Your task to perform on an android device: change text size in settings app Image 0: 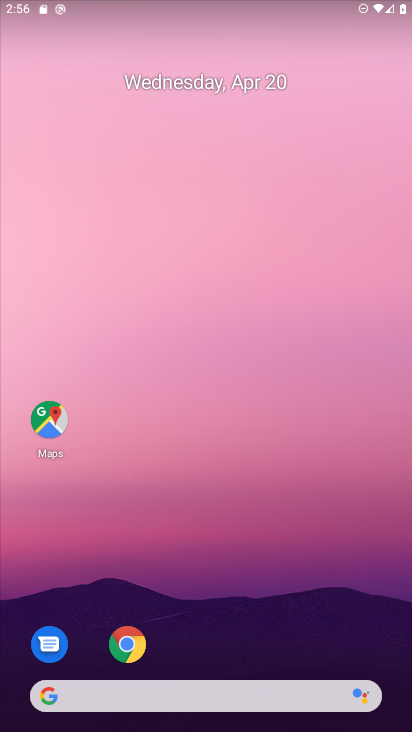
Step 0: drag from (202, 385) to (233, 45)
Your task to perform on an android device: change text size in settings app Image 1: 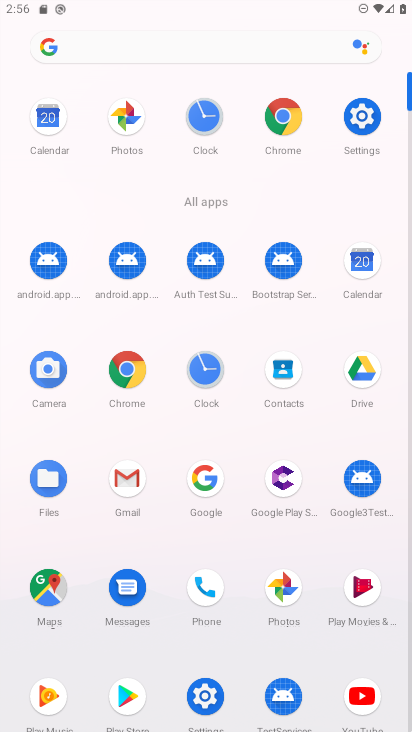
Step 1: click (365, 115)
Your task to perform on an android device: change text size in settings app Image 2: 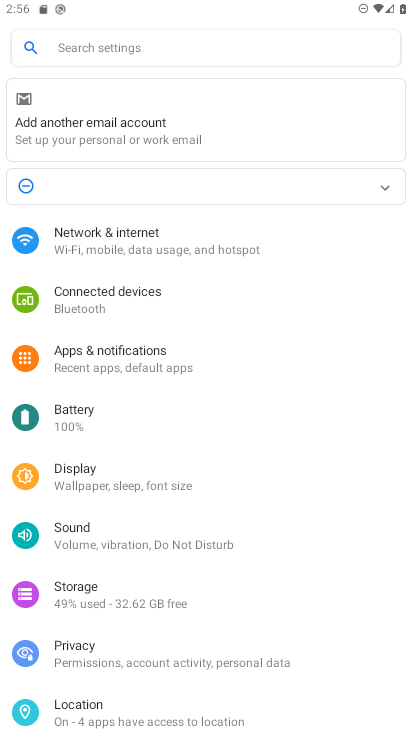
Step 2: click (127, 481)
Your task to perform on an android device: change text size in settings app Image 3: 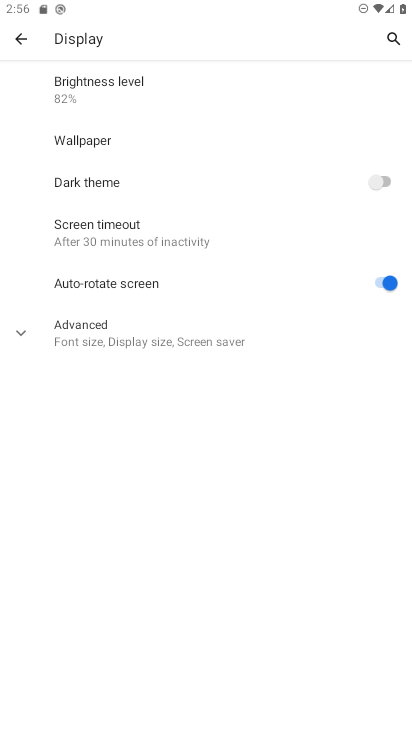
Step 3: click (89, 329)
Your task to perform on an android device: change text size in settings app Image 4: 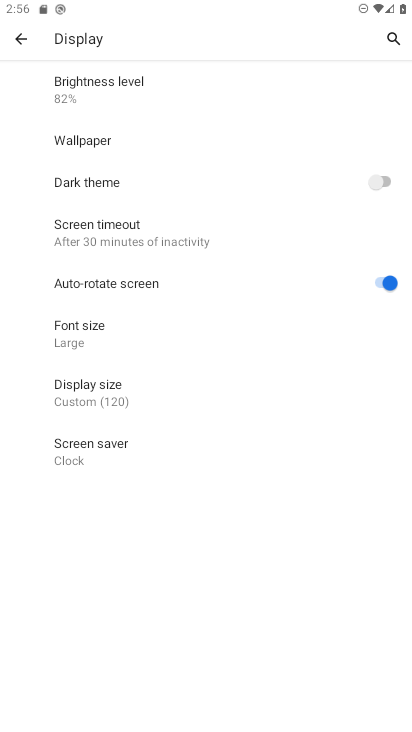
Step 4: click (89, 329)
Your task to perform on an android device: change text size in settings app Image 5: 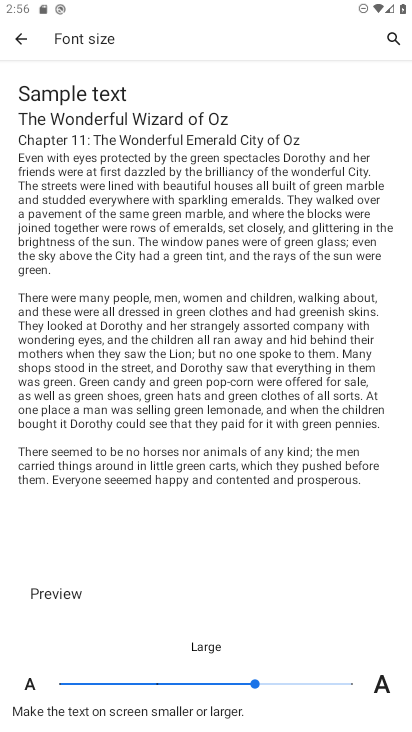
Step 5: click (164, 687)
Your task to perform on an android device: change text size in settings app Image 6: 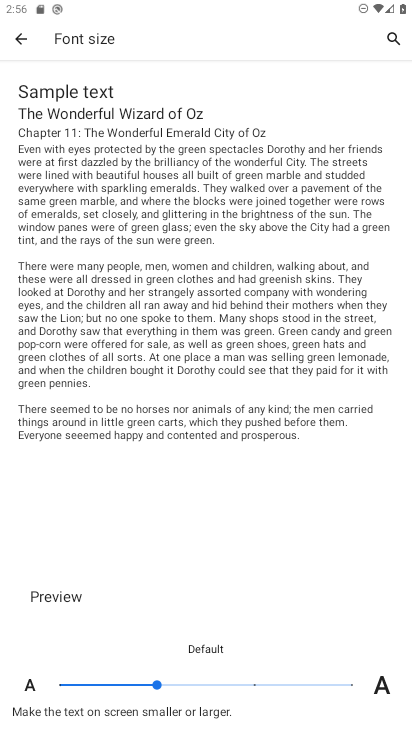
Step 6: task complete